Your task to perform on an android device: Open calendar and show me the second week of next month Image 0: 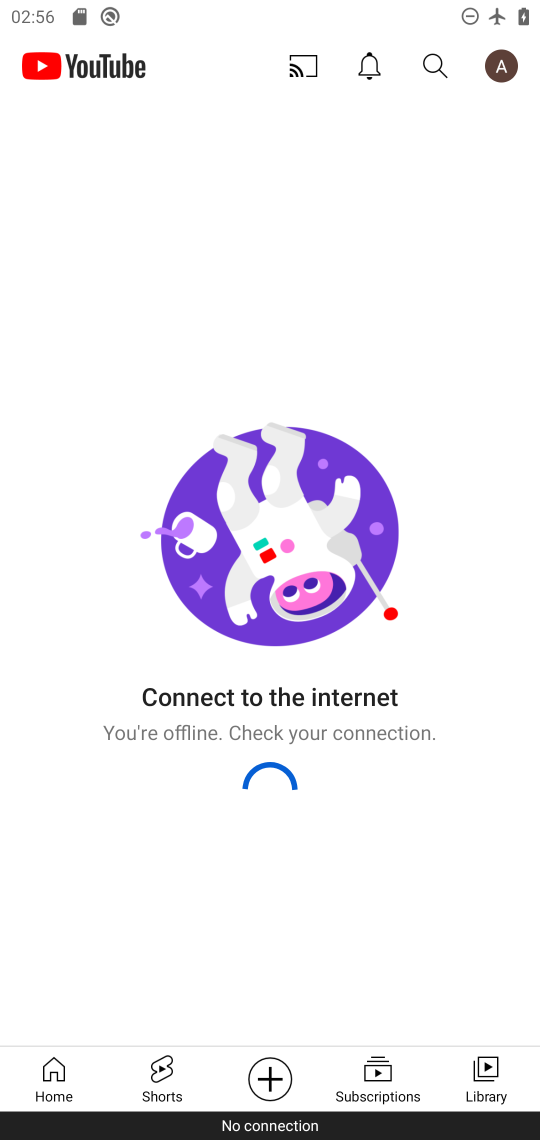
Step 0: press home button
Your task to perform on an android device: Open calendar and show me the second week of next month Image 1: 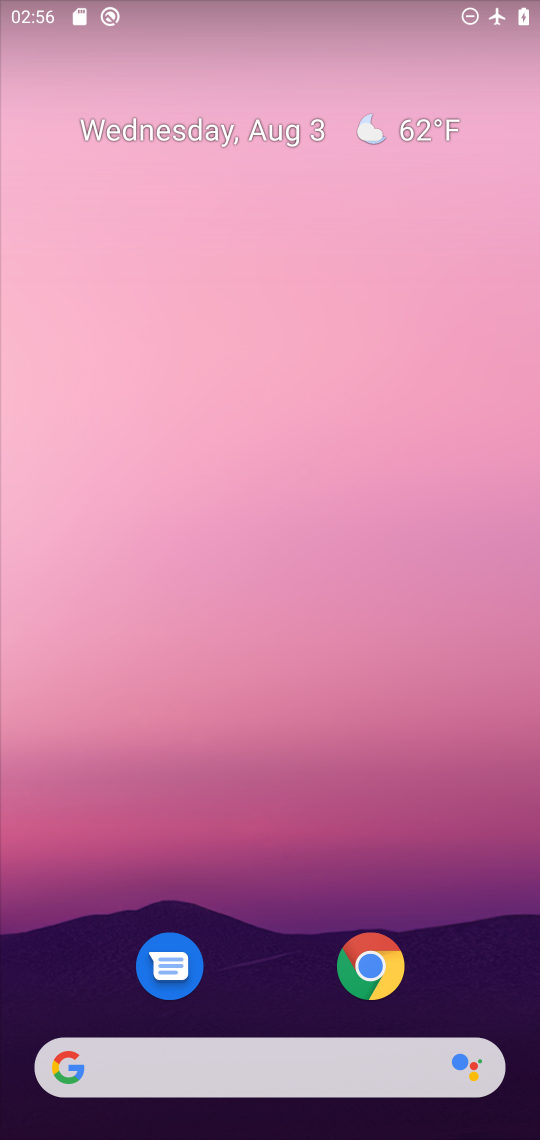
Step 1: drag from (286, 812) to (313, 229)
Your task to perform on an android device: Open calendar and show me the second week of next month Image 2: 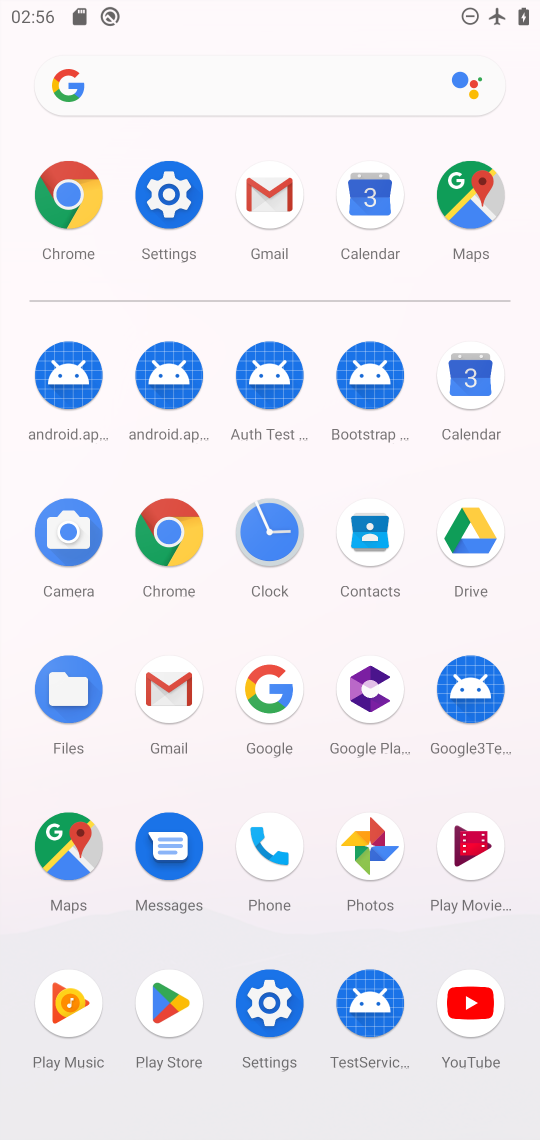
Step 2: click (350, 230)
Your task to perform on an android device: Open calendar and show me the second week of next month Image 3: 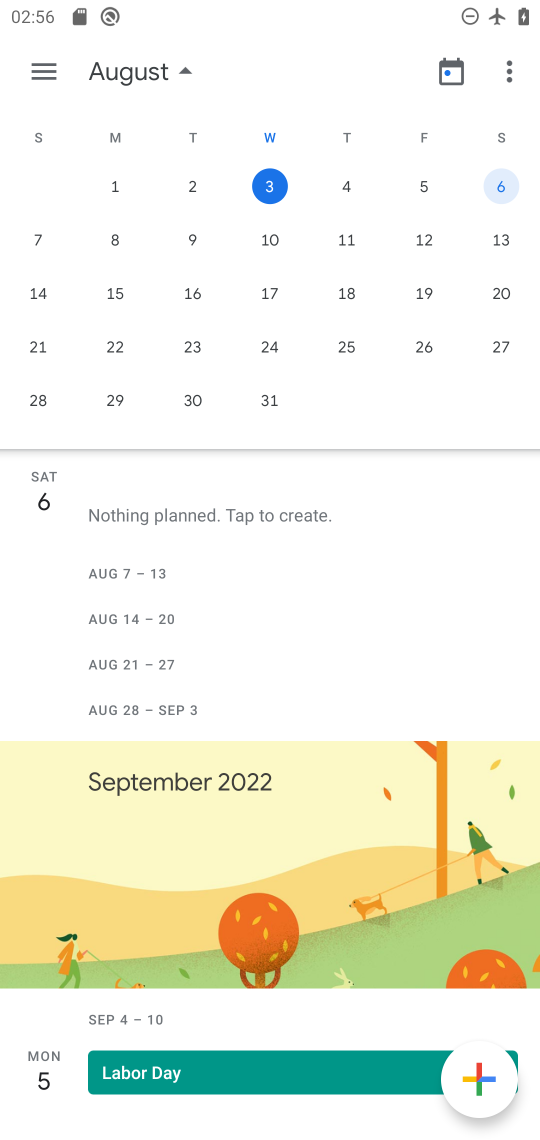
Step 3: drag from (372, 262) to (11, 255)
Your task to perform on an android device: Open calendar and show me the second week of next month Image 4: 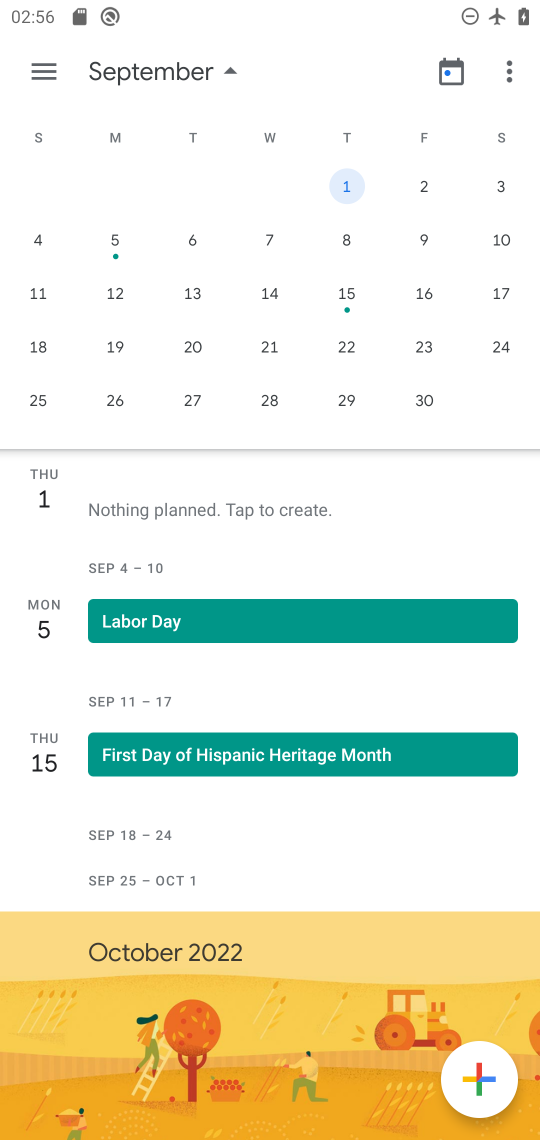
Step 4: click (38, 253)
Your task to perform on an android device: Open calendar and show me the second week of next month Image 5: 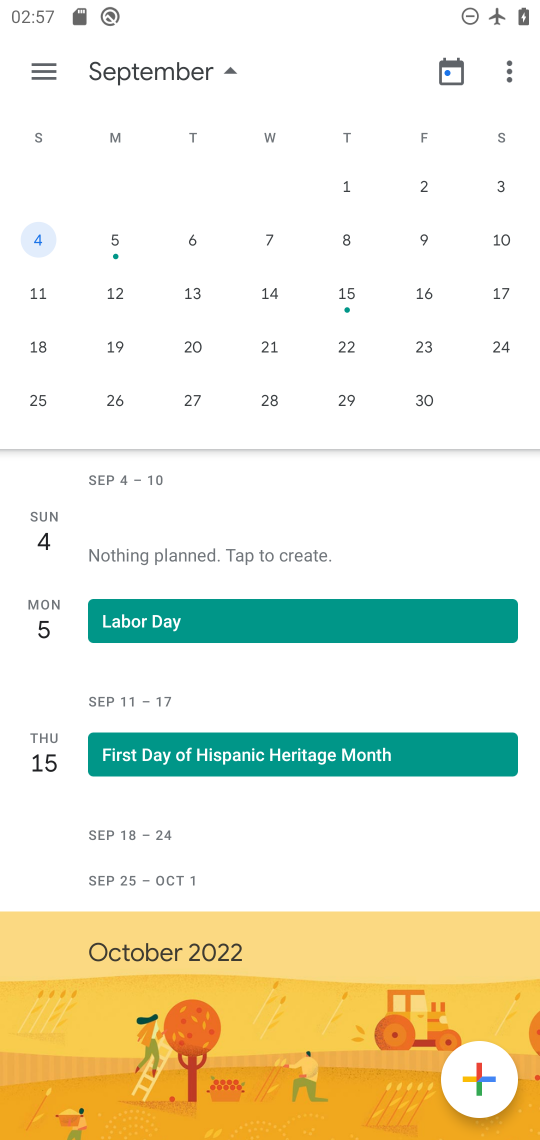
Step 5: task complete